Your task to perform on an android device: Open maps Image 0: 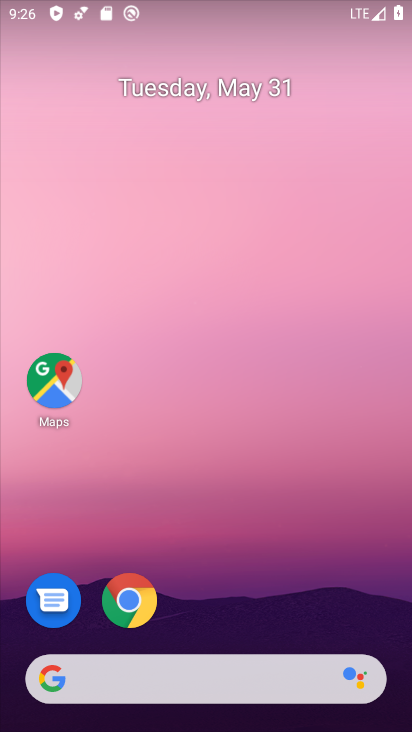
Step 0: click (30, 374)
Your task to perform on an android device: Open maps Image 1: 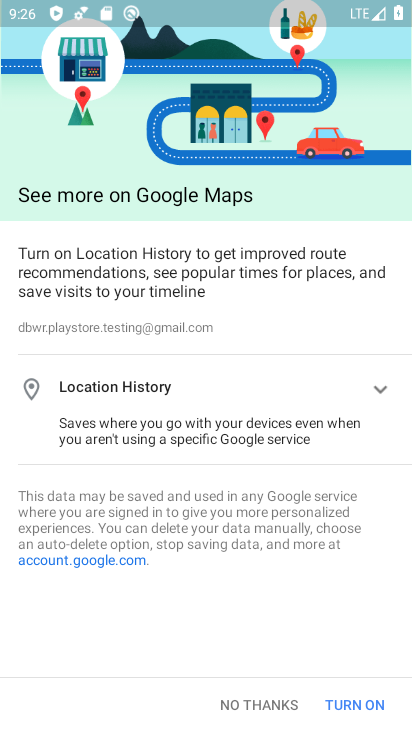
Step 1: task complete